Your task to perform on an android device: change the clock display to digital Image 0: 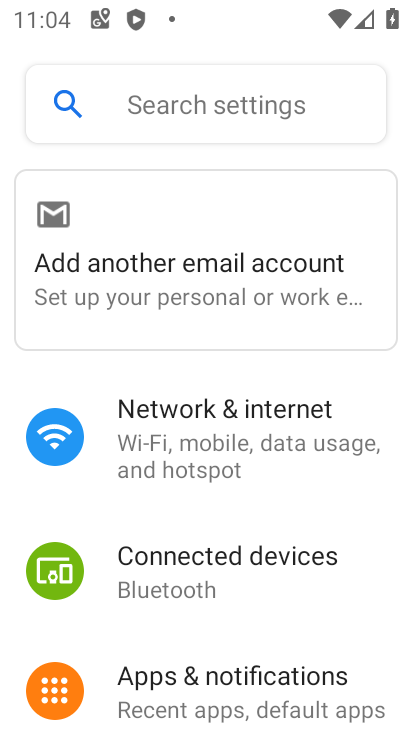
Step 0: press home button
Your task to perform on an android device: change the clock display to digital Image 1: 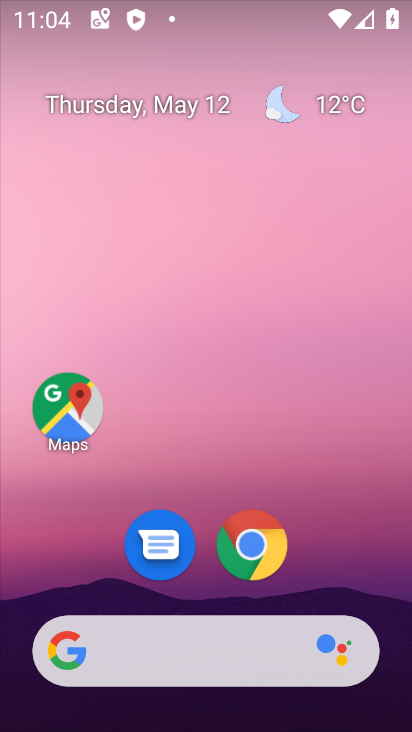
Step 1: drag from (207, 589) to (207, 40)
Your task to perform on an android device: change the clock display to digital Image 2: 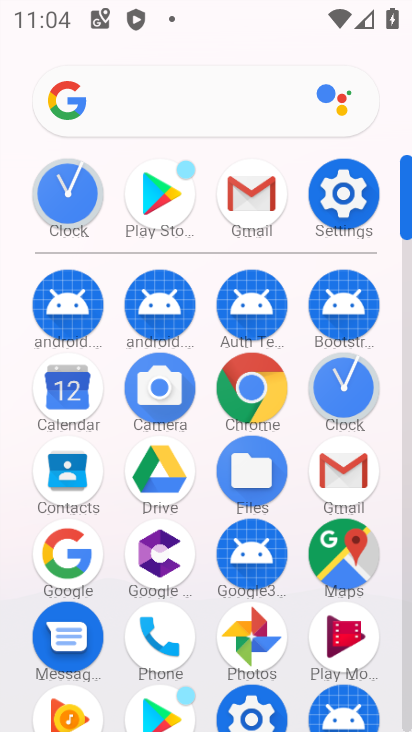
Step 2: click (67, 187)
Your task to perform on an android device: change the clock display to digital Image 3: 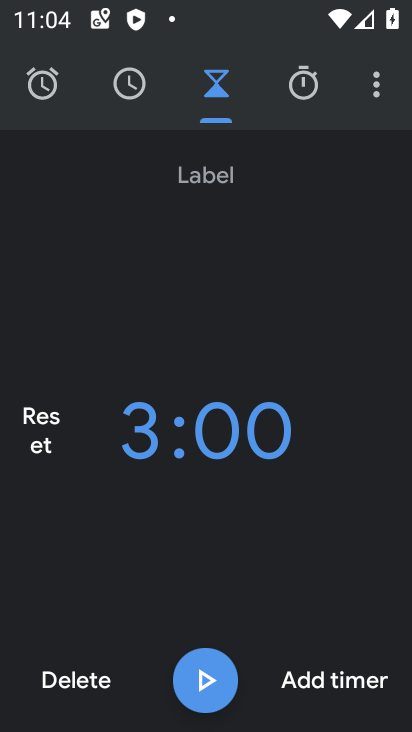
Step 3: click (375, 84)
Your task to perform on an android device: change the clock display to digital Image 4: 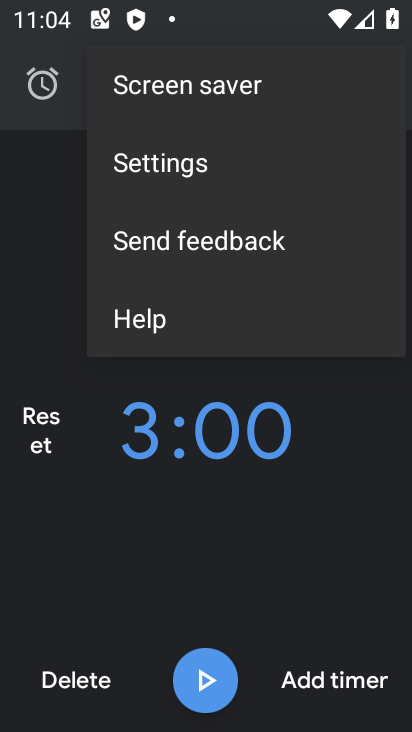
Step 4: click (220, 162)
Your task to perform on an android device: change the clock display to digital Image 5: 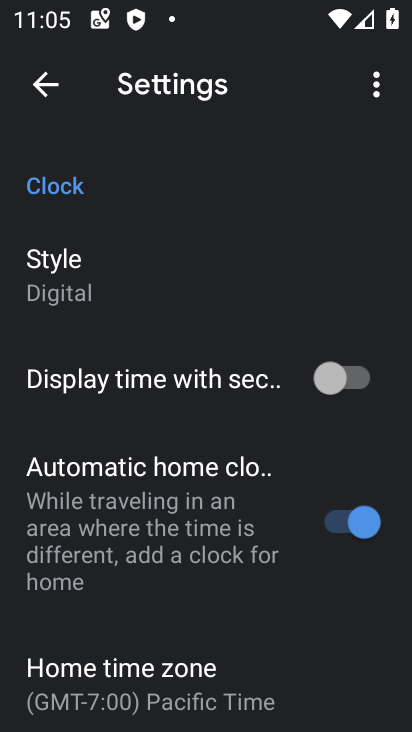
Step 5: click (107, 270)
Your task to perform on an android device: change the clock display to digital Image 6: 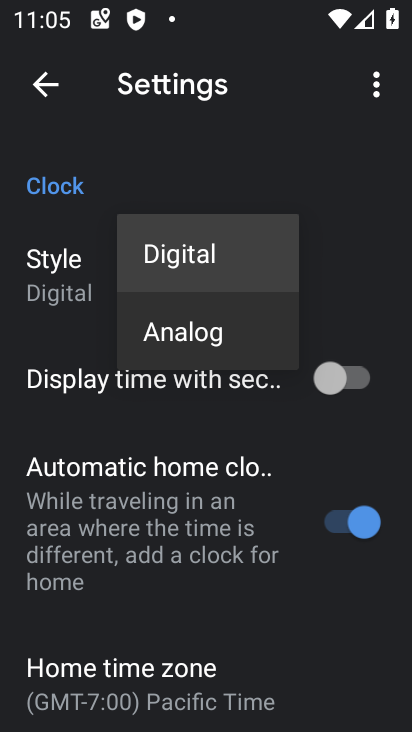
Step 6: click (227, 257)
Your task to perform on an android device: change the clock display to digital Image 7: 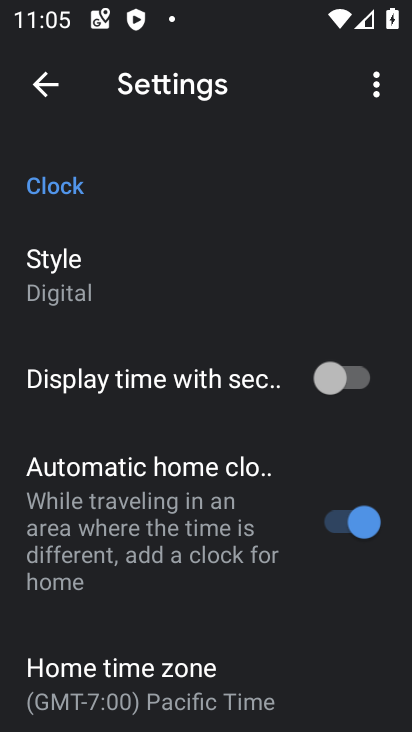
Step 7: task complete